Your task to perform on an android device: Show me the alarms in the clock app Image 0: 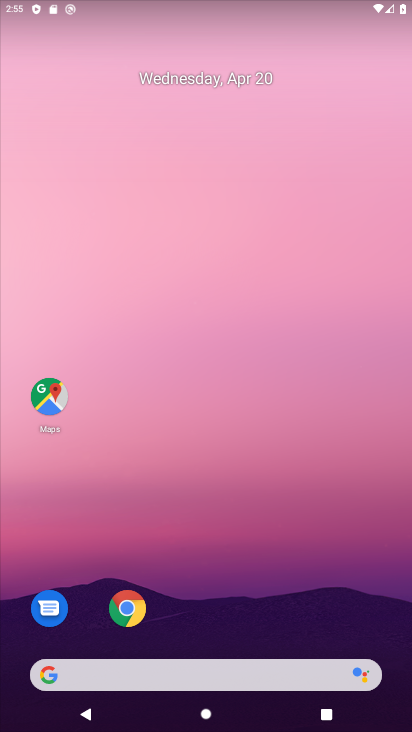
Step 0: click (178, 84)
Your task to perform on an android device: Show me the alarms in the clock app Image 1: 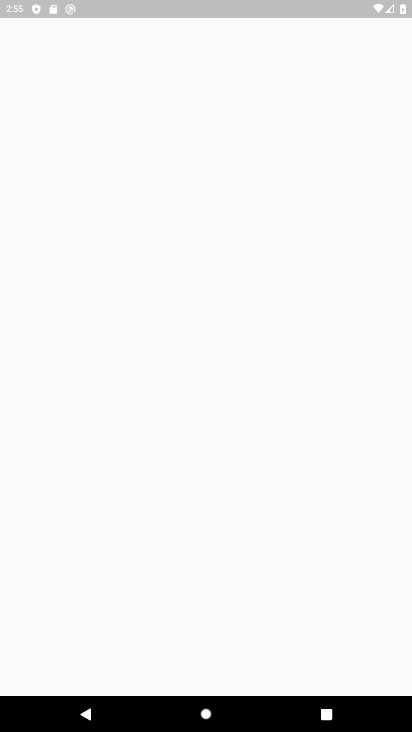
Step 1: press home button
Your task to perform on an android device: Show me the alarms in the clock app Image 2: 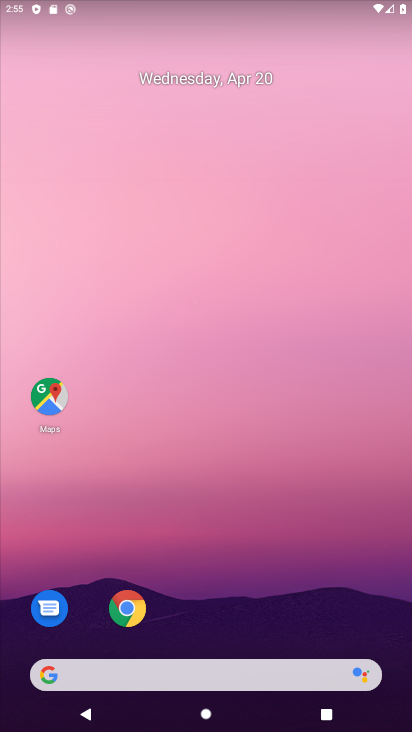
Step 2: drag from (240, 667) to (409, 0)
Your task to perform on an android device: Show me the alarms in the clock app Image 3: 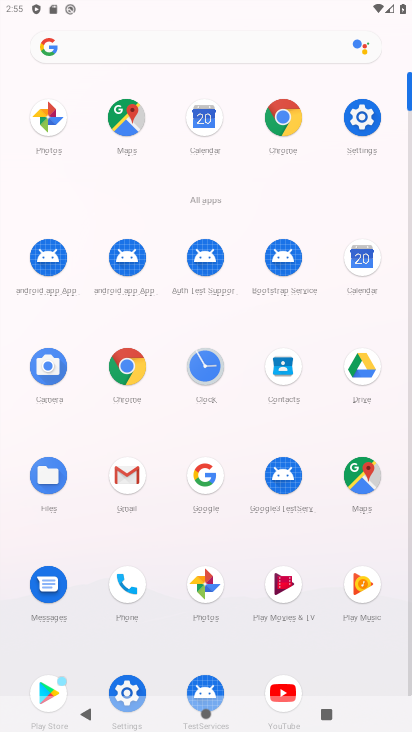
Step 3: click (203, 373)
Your task to perform on an android device: Show me the alarms in the clock app Image 4: 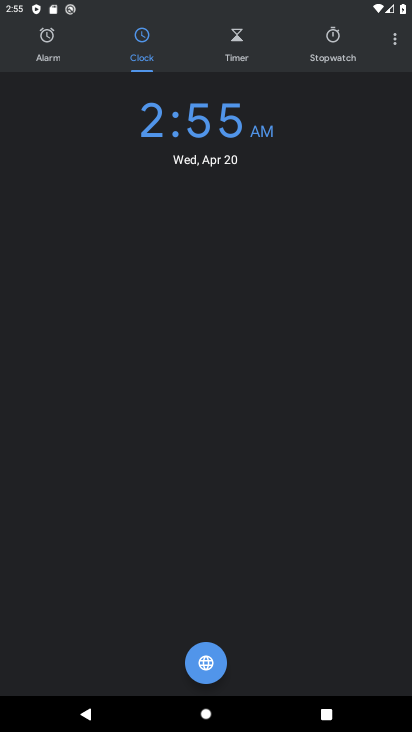
Step 4: click (394, 54)
Your task to perform on an android device: Show me the alarms in the clock app Image 5: 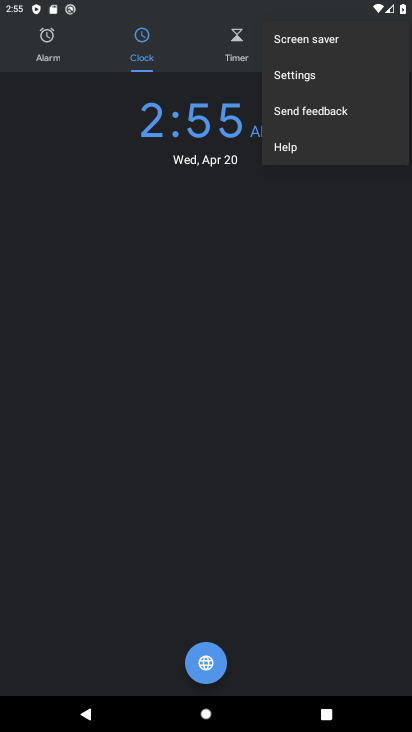
Step 5: click (51, 53)
Your task to perform on an android device: Show me the alarms in the clock app Image 6: 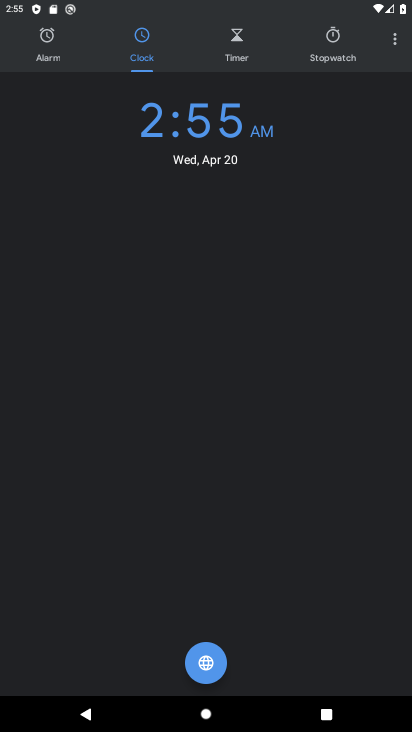
Step 6: click (41, 69)
Your task to perform on an android device: Show me the alarms in the clock app Image 7: 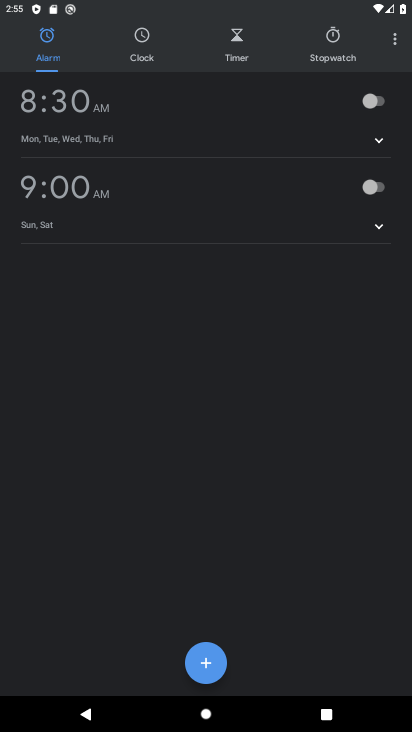
Step 7: task complete